Your task to perform on an android device: star an email in the gmail app Image 0: 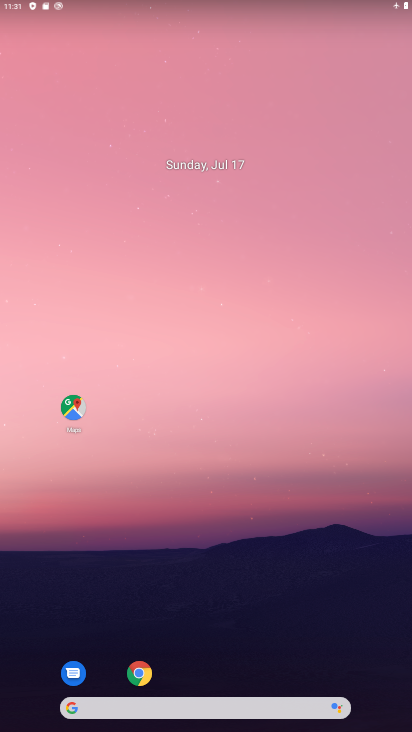
Step 0: drag from (272, 617) to (173, 97)
Your task to perform on an android device: star an email in the gmail app Image 1: 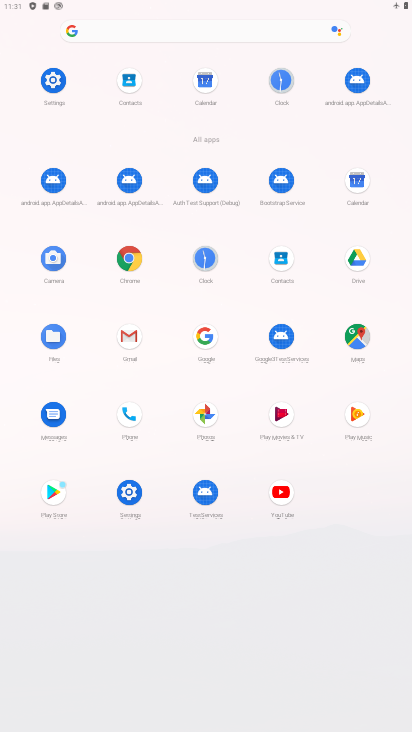
Step 1: click (129, 334)
Your task to perform on an android device: star an email in the gmail app Image 2: 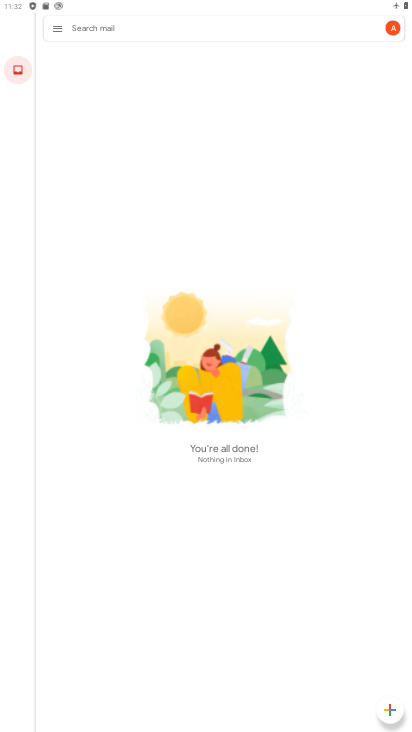
Step 2: click (52, 21)
Your task to perform on an android device: star an email in the gmail app Image 3: 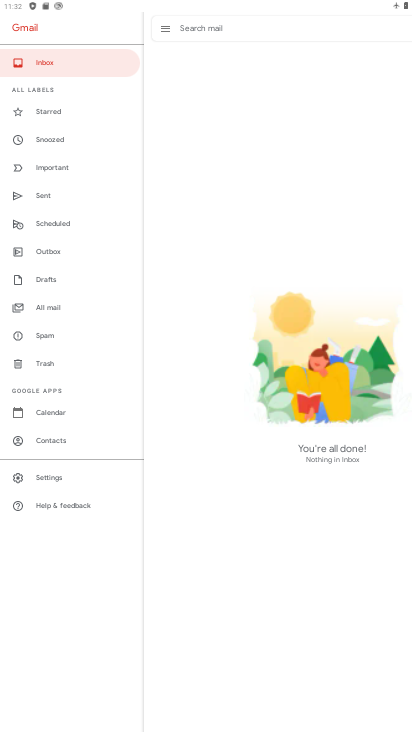
Step 3: click (49, 308)
Your task to perform on an android device: star an email in the gmail app Image 4: 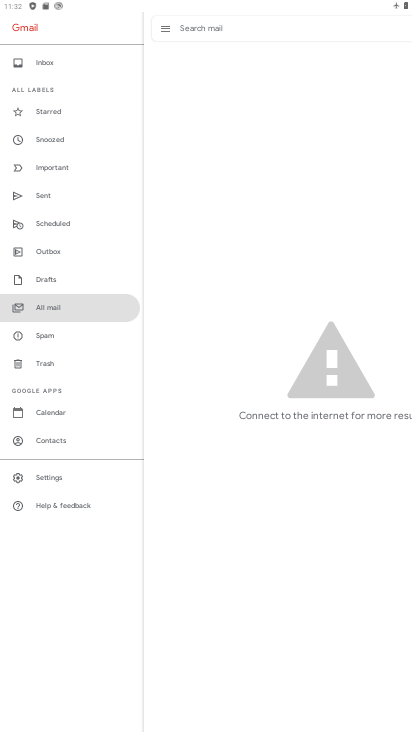
Step 4: task complete